Your task to perform on an android device: Go to Maps Image 0: 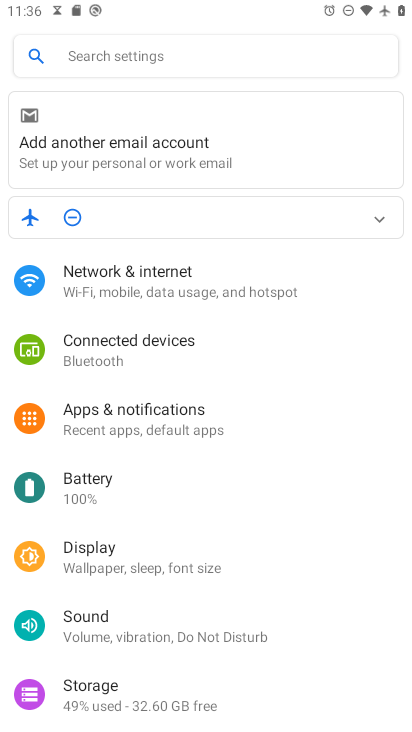
Step 0: press home button
Your task to perform on an android device: Go to Maps Image 1: 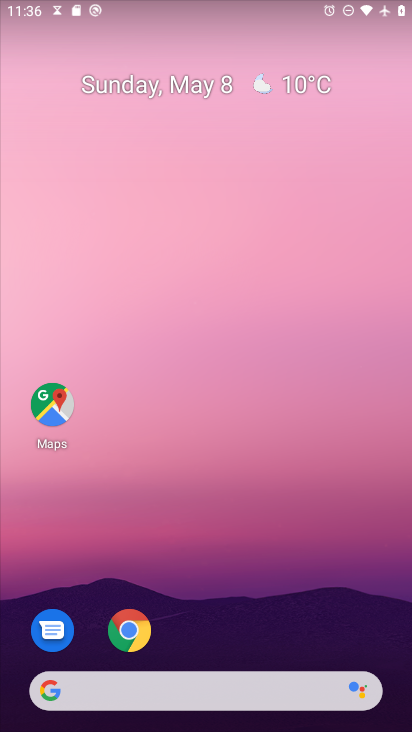
Step 1: click (57, 415)
Your task to perform on an android device: Go to Maps Image 2: 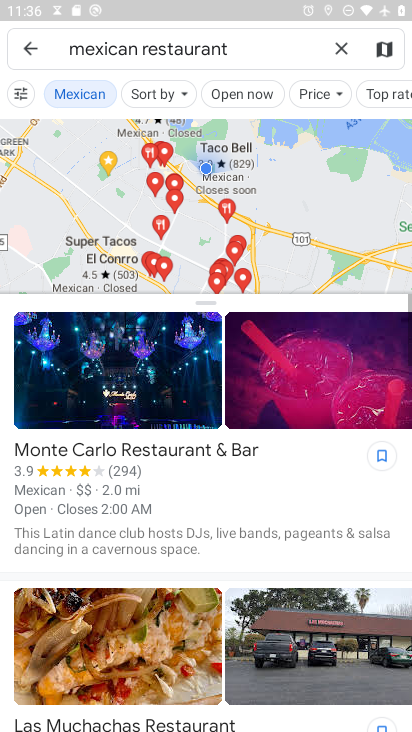
Step 2: click (25, 50)
Your task to perform on an android device: Go to Maps Image 3: 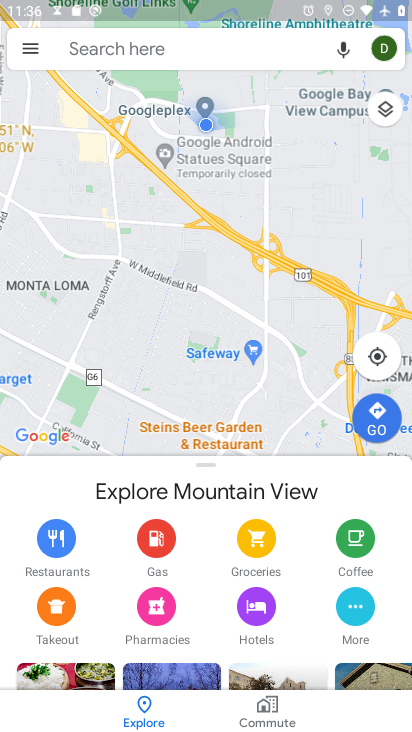
Step 3: task complete